Your task to perform on an android device: delete a single message in the gmail app Image 0: 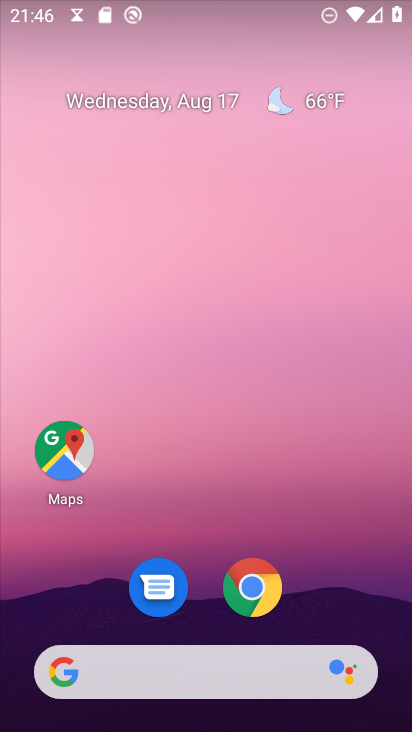
Step 0: drag from (16, 668) to (220, 156)
Your task to perform on an android device: delete a single message in the gmail app Image 1: 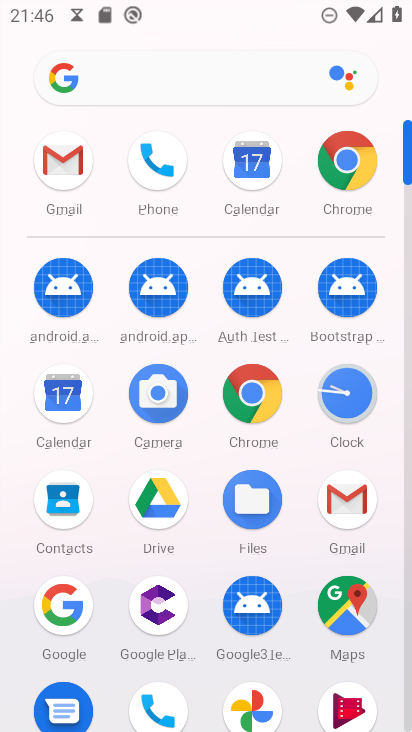
Step 1: click (74, 175)
Your task to perform on an android device: delete a single message in the gmail app Image 2: 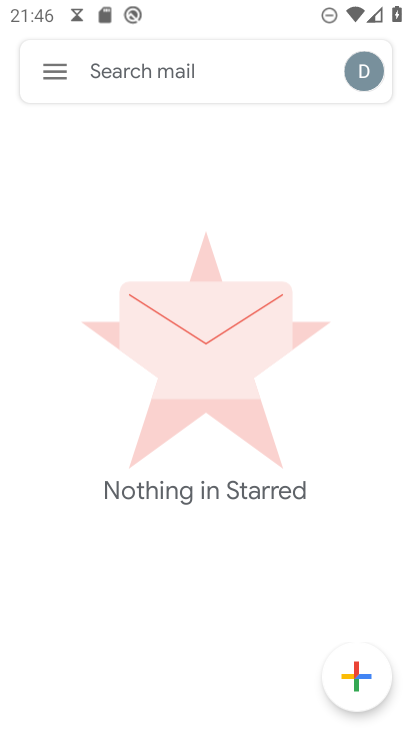
Step 2: click (50, 64)
Your task to perform on an android device: delete a single message in the gmail app Image 3: 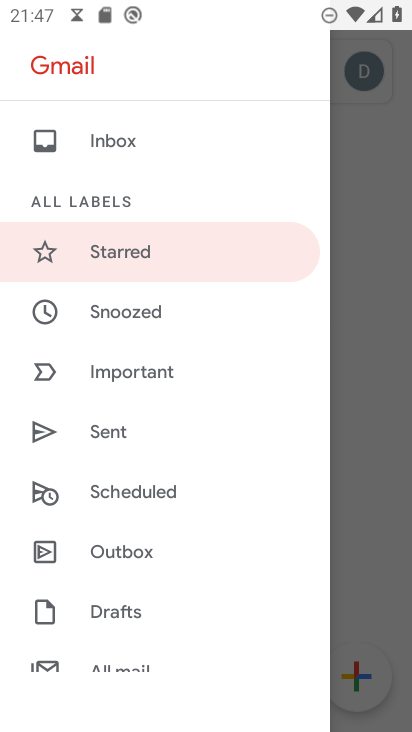
Step 3: click (157, 145)
Your task to perform on an android device: delete a single message in the gmail app Image 4: 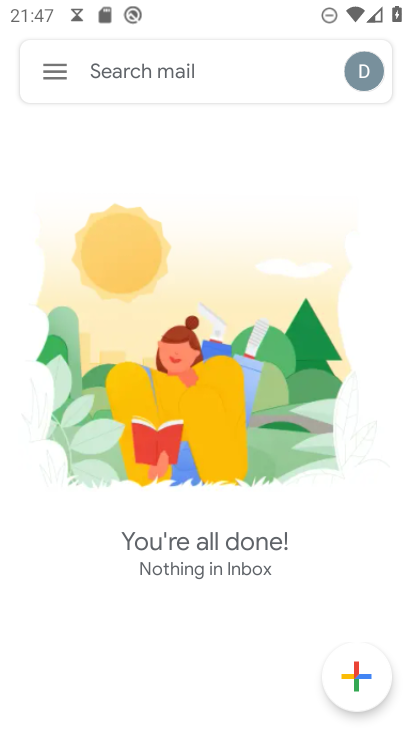
Step 4: task complete